Your task to perform on an android device: turn on sleep mode Image 0: 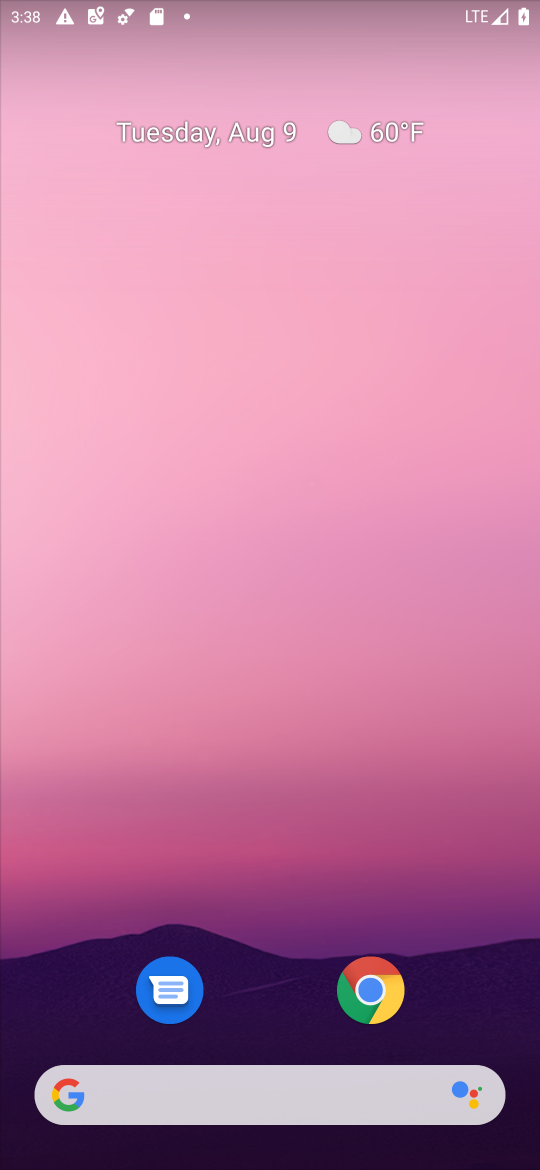
Step 0: click (322, 1058)
Your task to perform on an android device: turn on sleep mode Image 1: 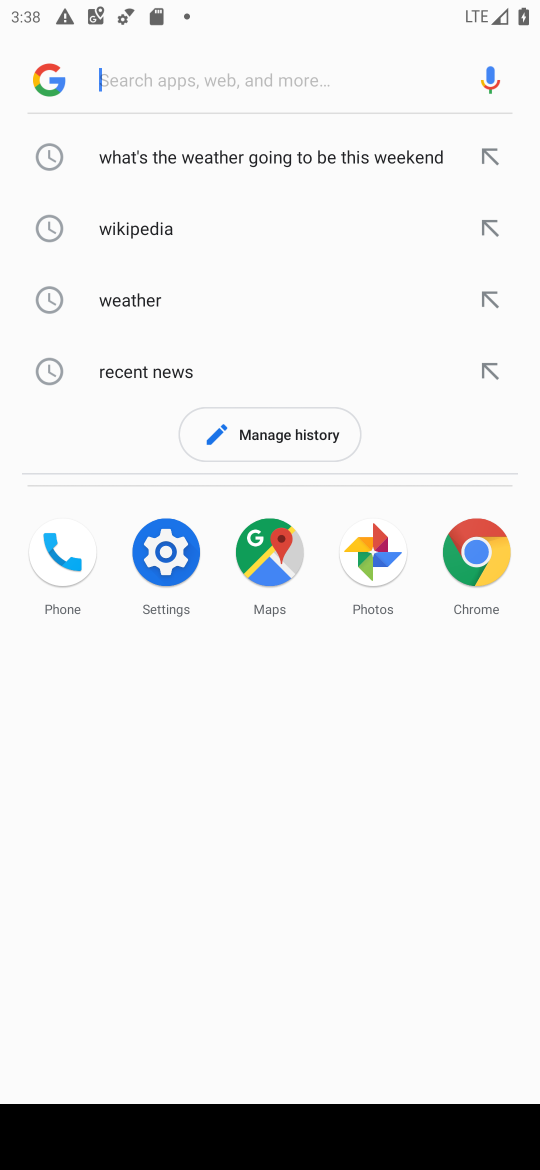
Step 1: press home button
Your task to perform on an android device: turn on sleep mode Image 2: 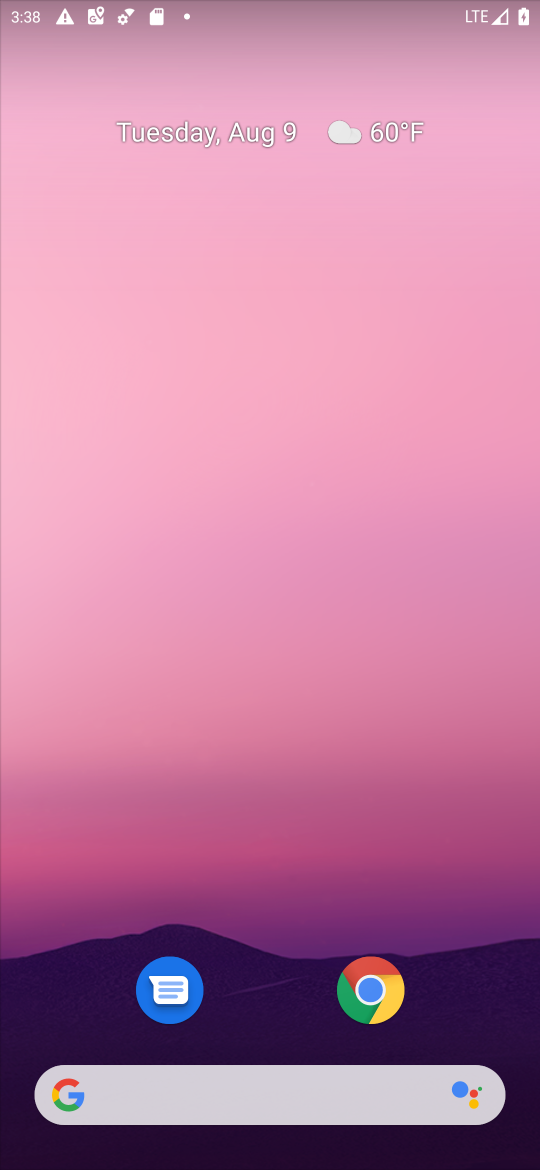
Step 2: drag from (296, 1080) to (172, 0)
Your task to perform on an android device: turn on sleep mode Image 3: 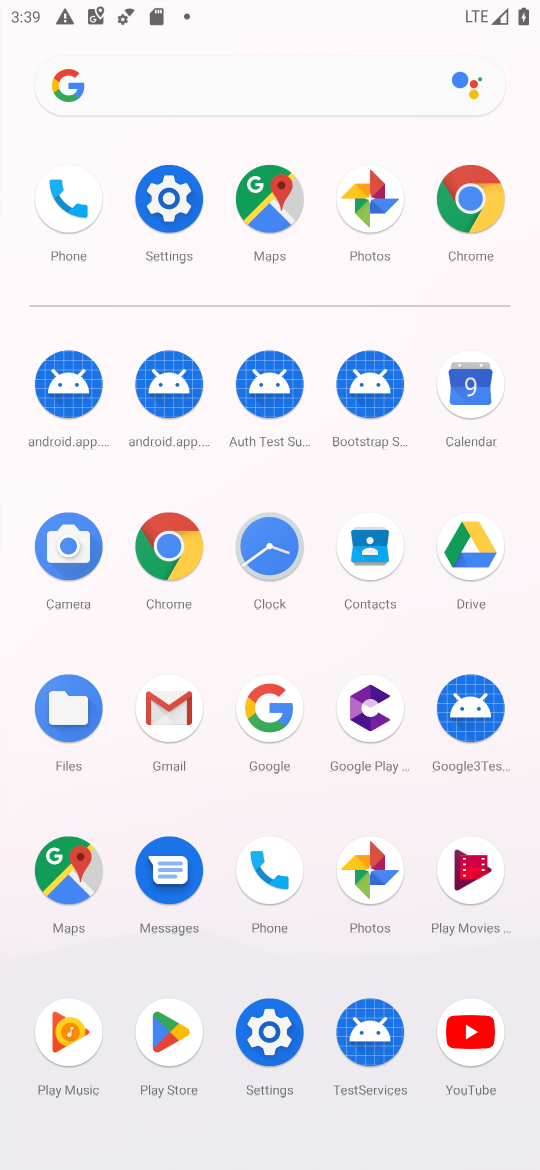
Step 3: click (163, 241)
Your task to perform on an android device: turn on sleep mode Image 4: 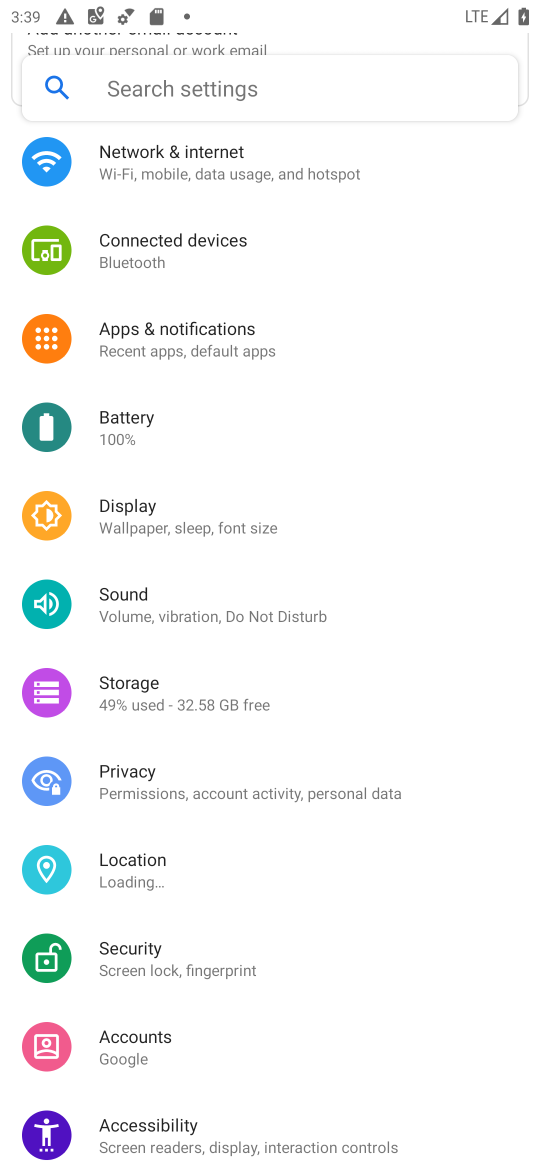
Step 4: click (232, 521)
Your task to perform on an android device: turn on sleep mode Image 5: 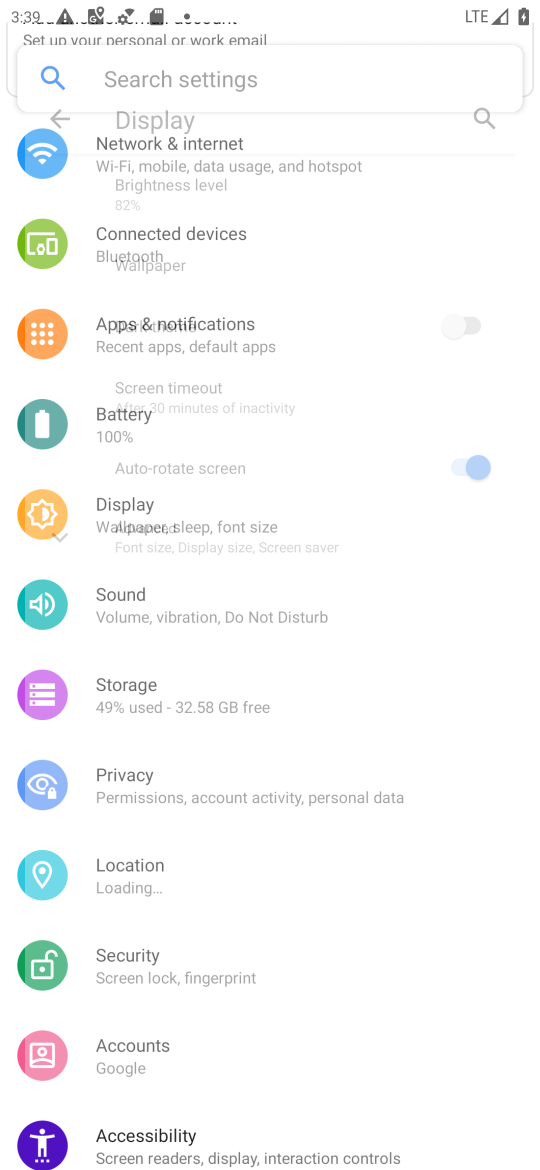
Step 5: task complete